Your task to perform on an android device: refresh tabs in the chrome app Image 0: 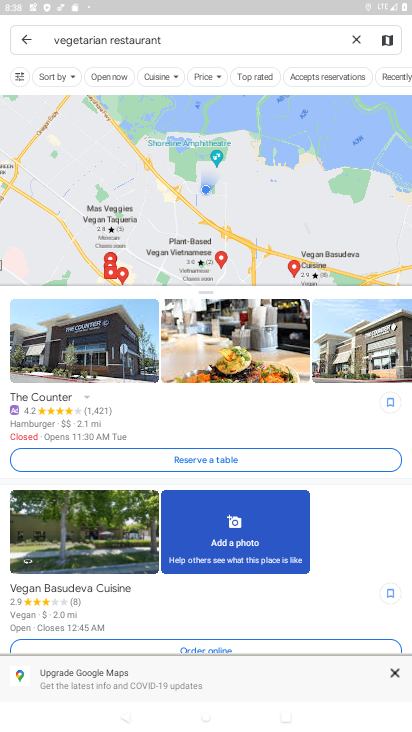
Step 0: press home button
Your task to perform on an android device: refresh tabs in the chrome app Image 1: 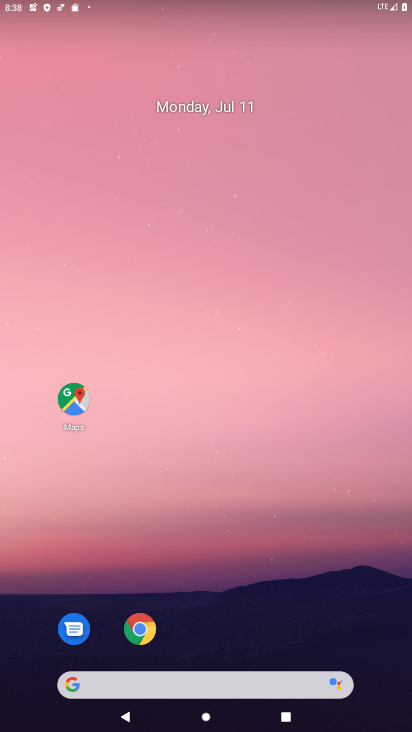
Step 1: click (141, 619)
Your task to perform on an android device: refresh tabs in the chrome app Image 2: 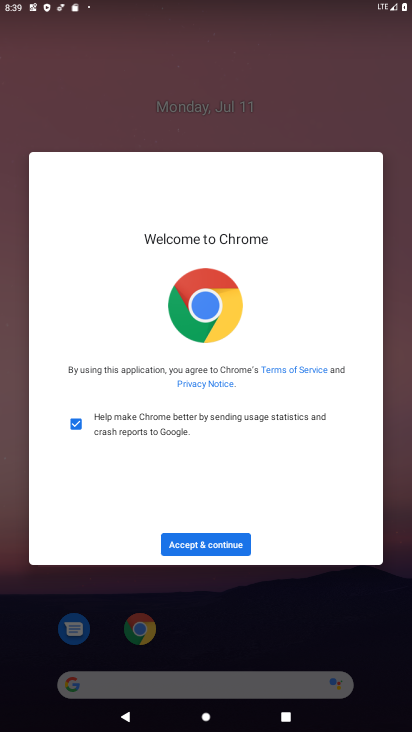
Step 2: click (184, 536)
Your task to perform on an android device: refresh tabs in the chrome app Image 3: 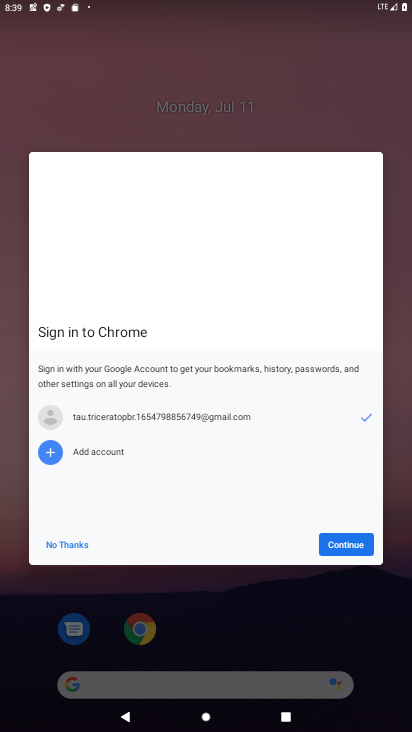
Step 3: click (358, 542)
Your task to perform on an android device: refresh tabs in the chrome app Image 4: 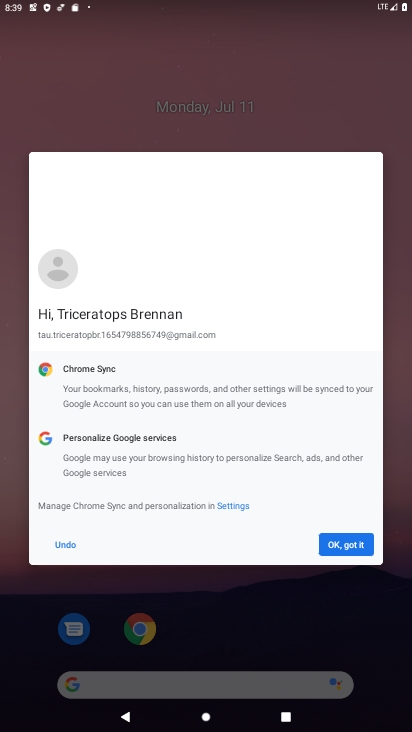
Step 4: click (341, 533)
Your task to perform on an android device: refresh tabs in the chrome app Image 5: 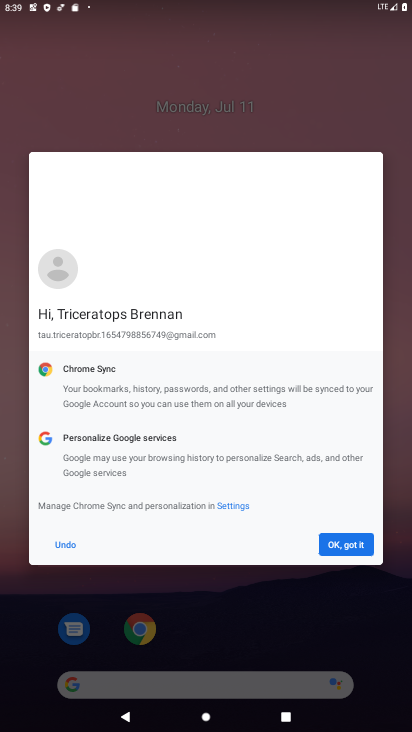
Step 5: click (342, 539)
Your task to perform on an android device: refresh tabs in the chrome app Image 6: 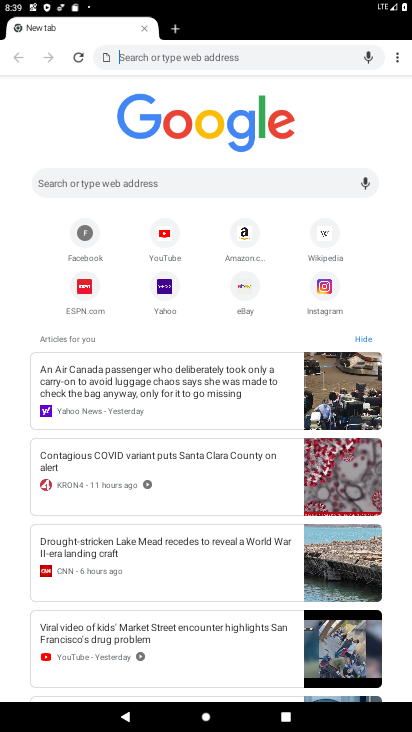
Step 6: click (74, 54)
Your task to perform on an android device: refresh tabs in the chrome app Image 7: 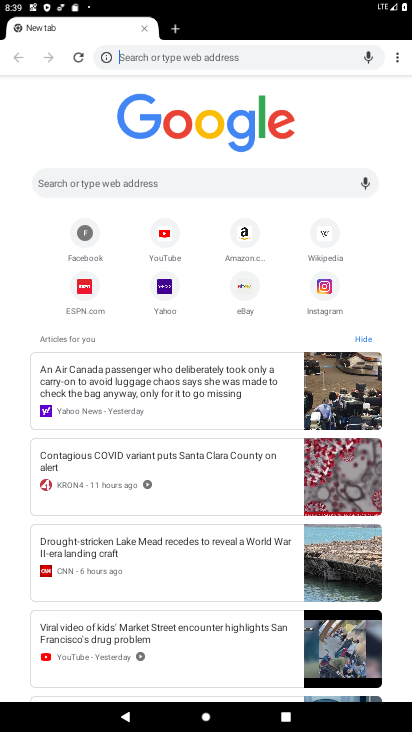
Step 7: task complete